Your task to perform on an android device: turn off javascript in the chrome app Image 0: 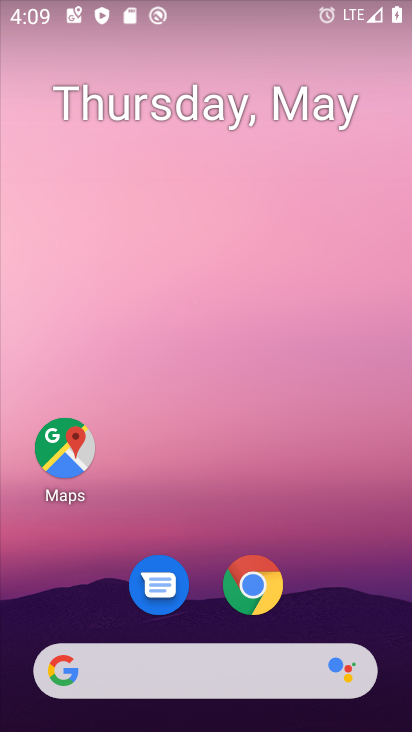
Step 0: click (266, 577)
Your task to perform on an android device: turn off javascript in the chrome app Image 1: 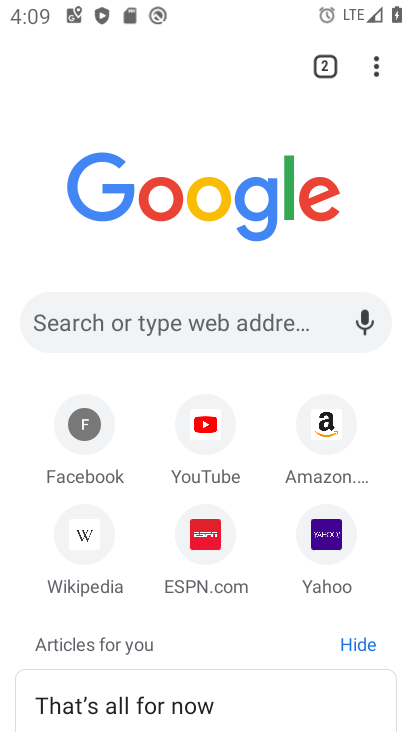
Step 1: click (373, 68)
Your task to perform on an android device: turn off javascript in the chrome app Image 2: 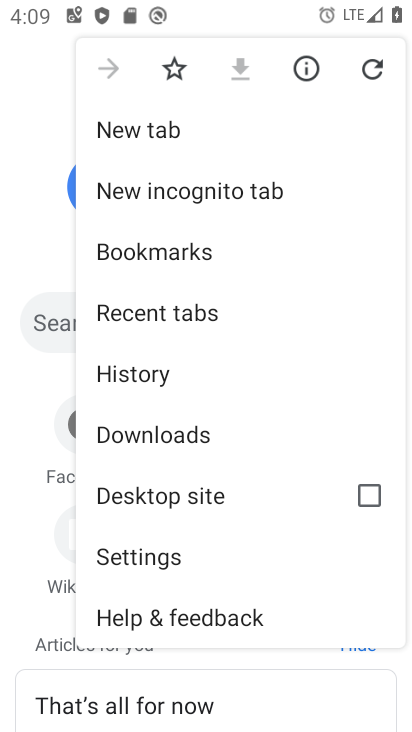
Step 2: click (197, 553)
Your task to perform on an android device: turn off javascript in the chrome app Image 3: 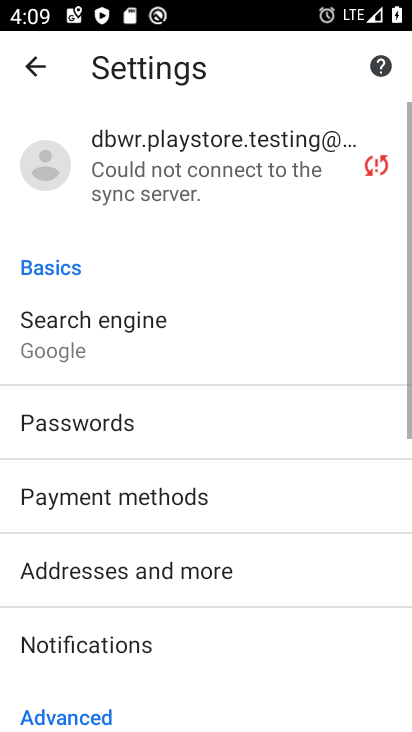
Step 3: drag from (259, 544) to (273, 155)
Your task to perform on an android device: turn off javascript in the chrome app Image 4: 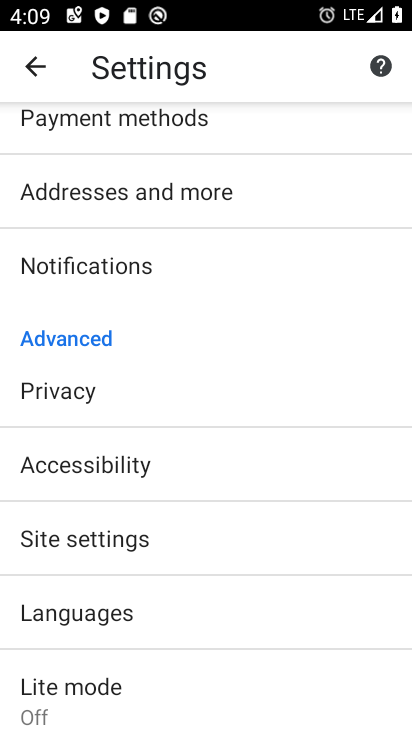
Step 4: click (229, 535)
Your task to perform on an android device: turn off javascript in the chrome app Image 5: 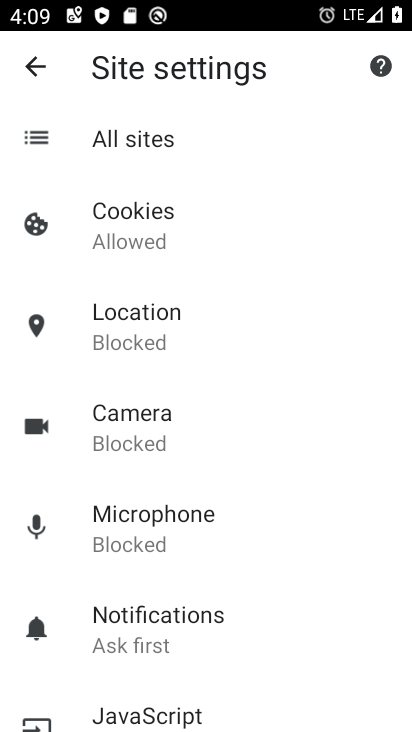
Step 5: drag from (269, 540) to (255, 401)
Your task to perform on an android device: turn off javascript in the chrome app Image 6: 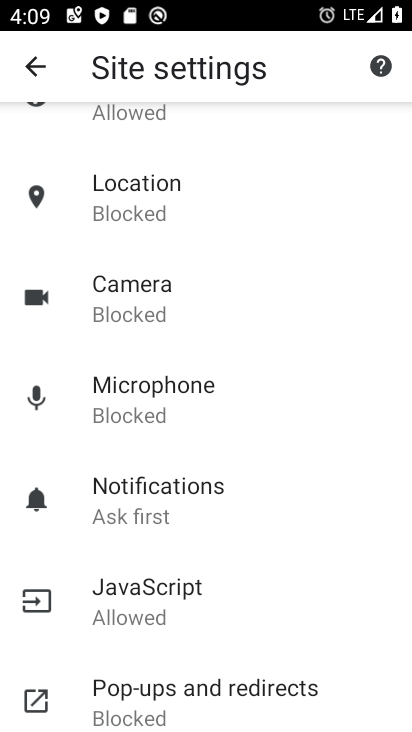
Step 6: click (204, 598)
Your task to perform on an android device: turn off javascript in the chrome app Image 7: 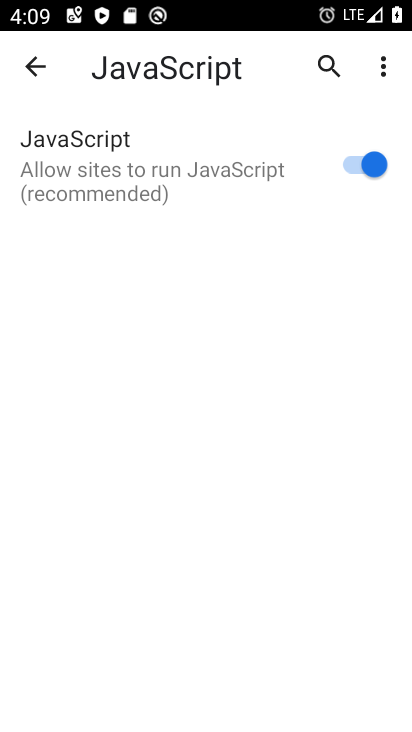
Step 7: click (352, 152)
Your task to perform on an android device: turn off javascript in the chrome app Image 8: 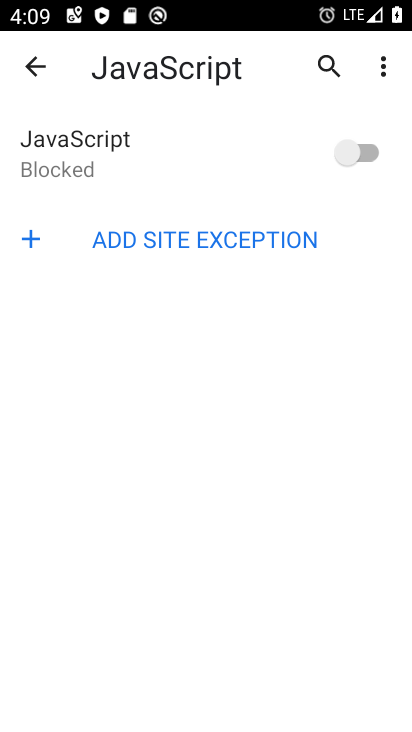
Step 8: task complete